Your task to perform on an android device: turn notification dots off Image 0: 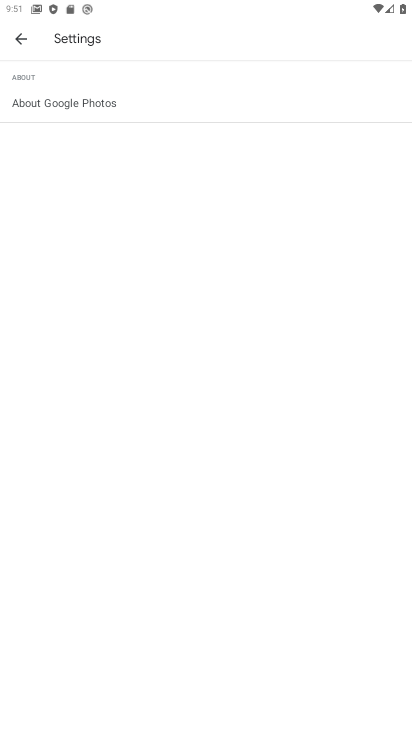
Step 0: press home button
Your task to perform on an android device: turn notification dots off Image 1: 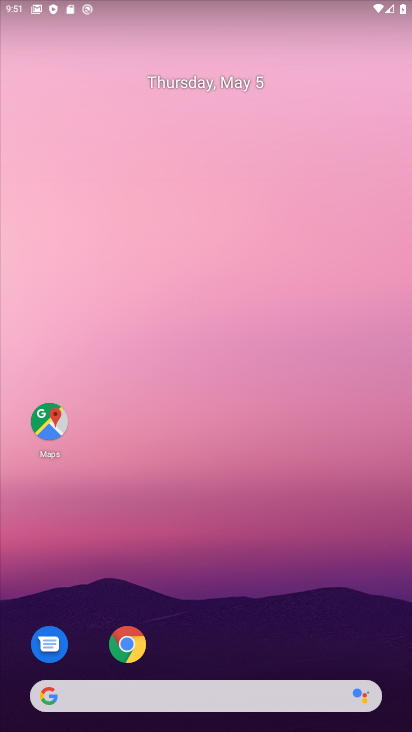
Step 1: drag from (227, 669) to (236, 132)
Your task to perform on an android device: turn notification dots off Image 2: 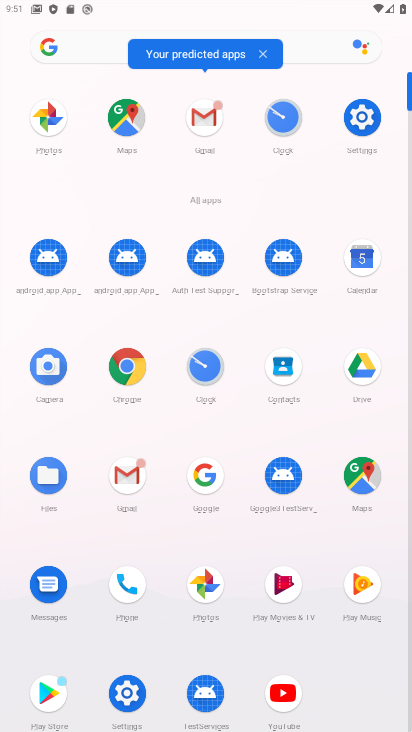
Step 2: click (367, 120)
Your task to perform on an android device: turn notification dots off Image 3: 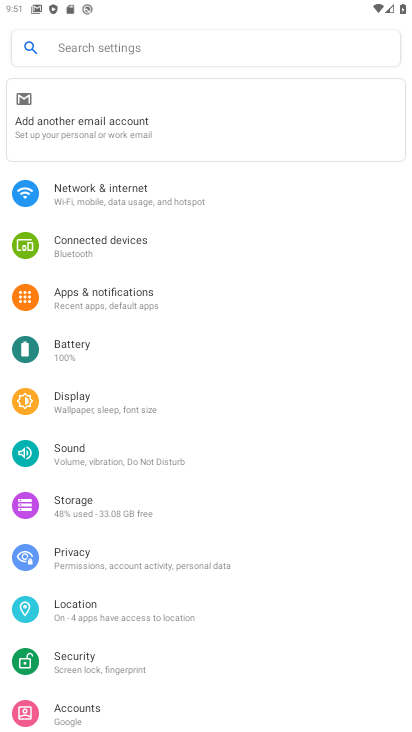
Step 3: click (111, 298)
Your task to perform on an android device: turn notification dots off Image 4: 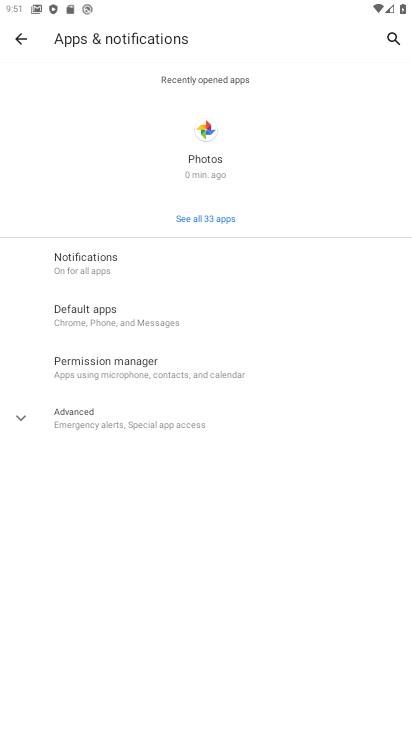
Step 4: click (104, 265)
Your task to perform on an android device: turn notification dots off Image 5: 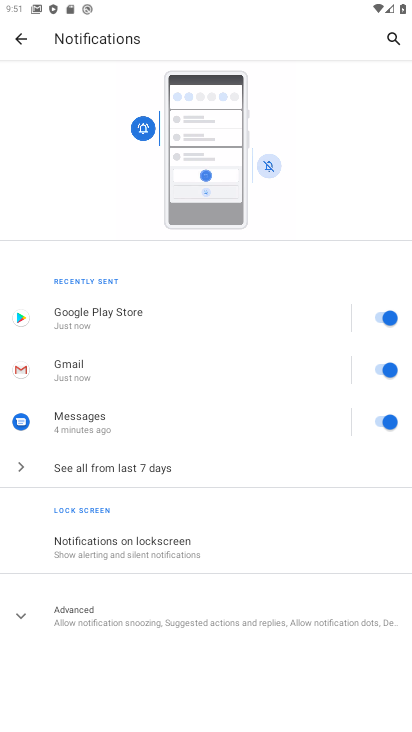
Step 5: click (119, 604)
Your task to perform on an android device: turn notification dots off Image 6: 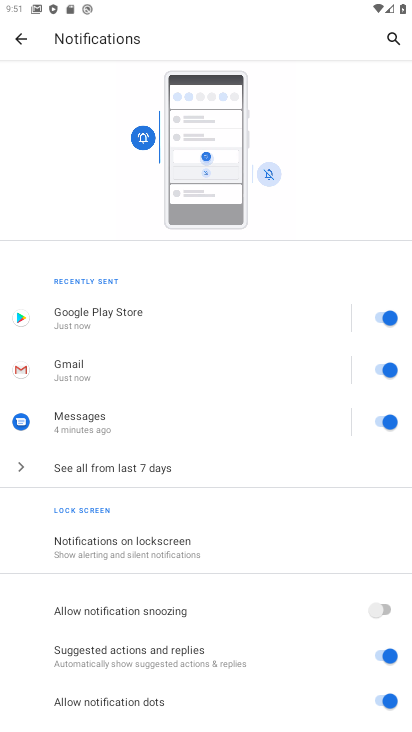
Step 6: click (383, 691)
Your task to perform on an android device: turn notification dots off Image 7: 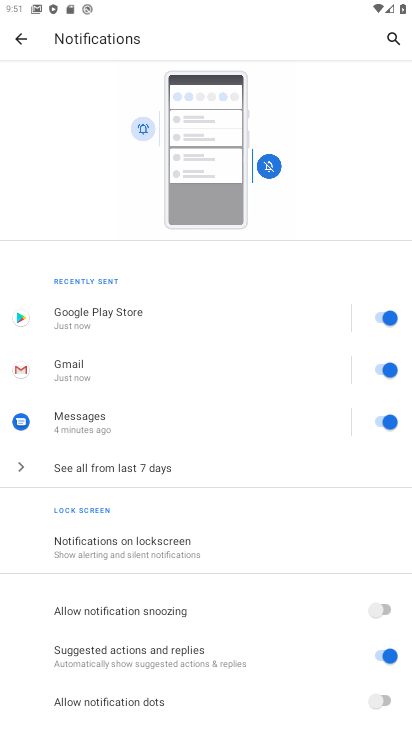
Step 7: task complete